Your task to perform on an android device: What's on my calendar today? Image 0: 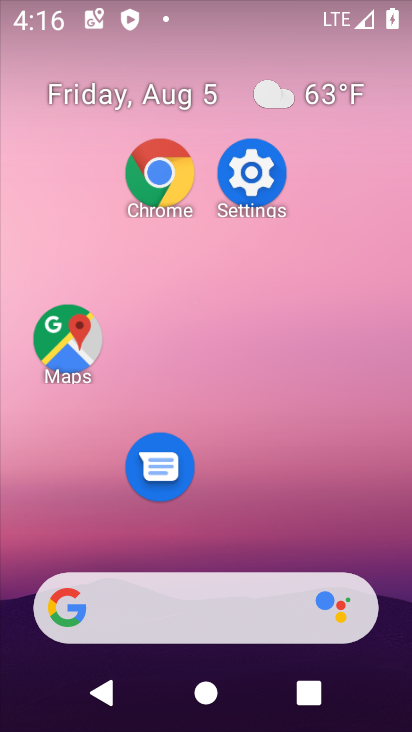
Step 0: drag from (294, 522) to (343, 109)
Your task to perform on an android device: What's on my calendar today? Image 1: 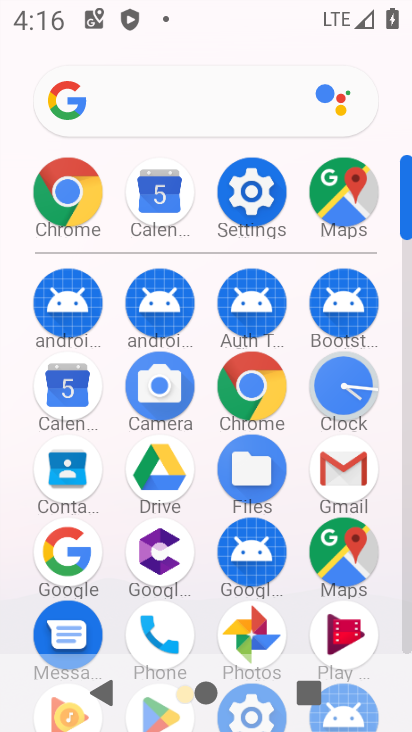
Step 1: click (79, 386)
Your task to perform on an android device: What's on my calendar today? Image 2: 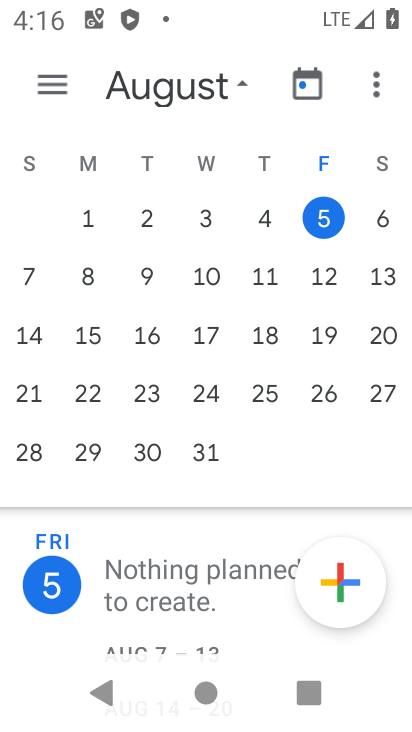
Step 2: click (340, 224)
Your task to perform on an android device: What's on my calendar today? Image 3: 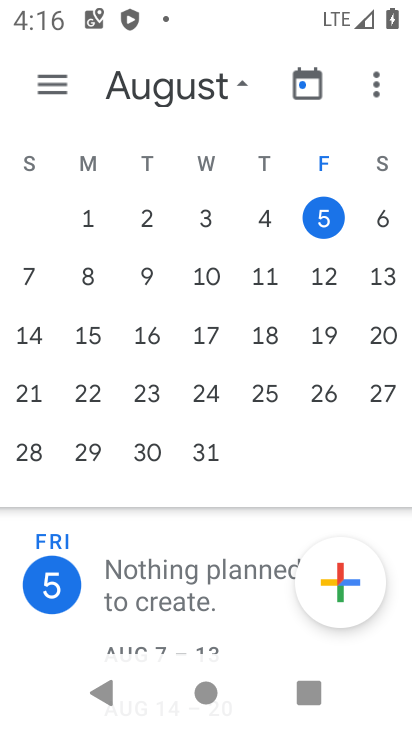
Step 3: task complete